Your task to perform on an android device: Go to display settings Image 0: 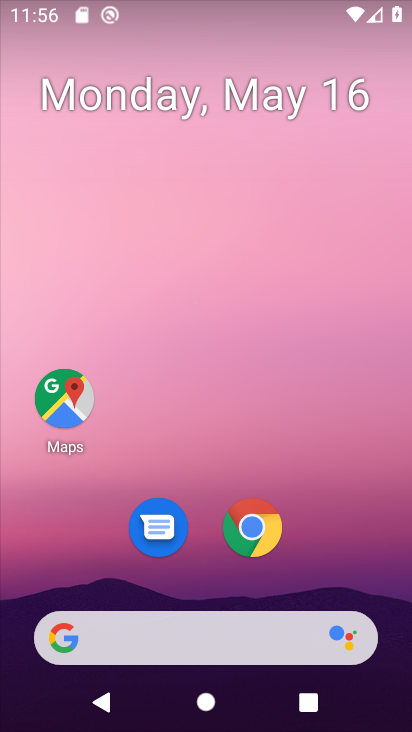
Step 0: drag from (318, 555) to (352, 248)
Your task to perform on an android device: Go to display settings Image 1: 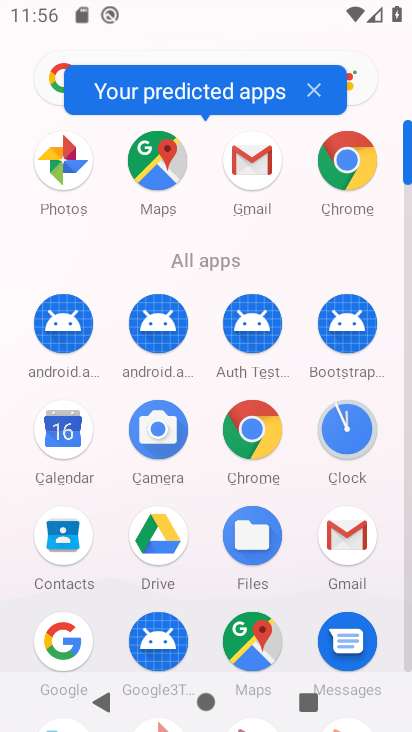
Step 1: drag from (297, 608) to (330, 260)
Your task to perform on an android device: Go to display settings Image 2: 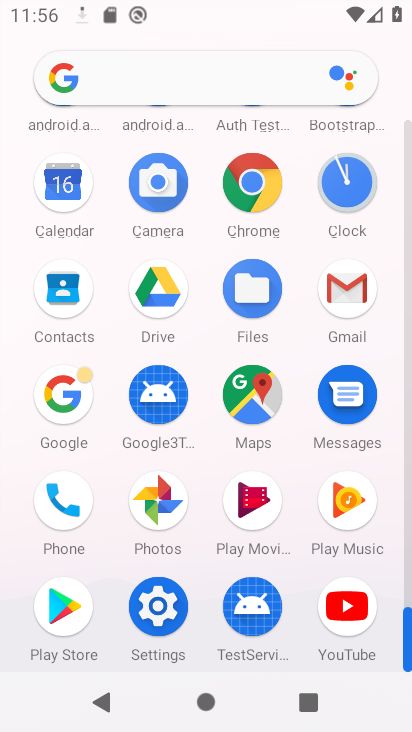
Step 2: click (157, 602)
Your task to perform on an android device: Go to display settings Image 3: 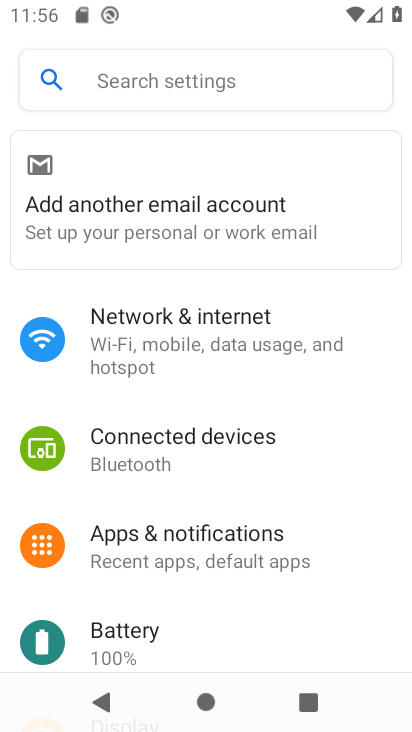
Step 3: drag from (224, 621) to (266, 266)
Your task to perform on an android device: Go to display settings Image 4: 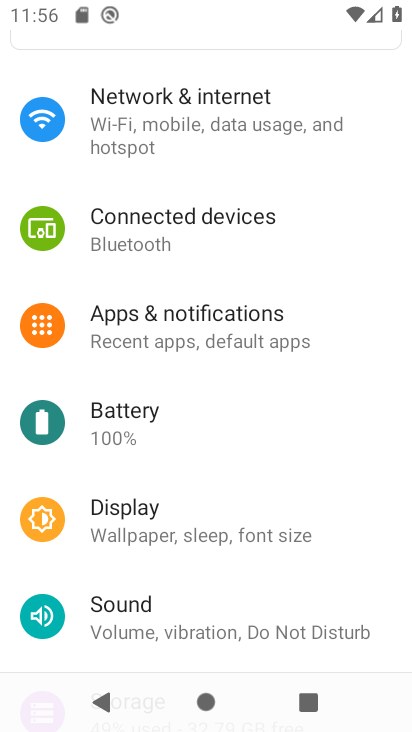
Step 4: click (232, 535)
Your task to perform on an android device: Go to display settings Image 5: 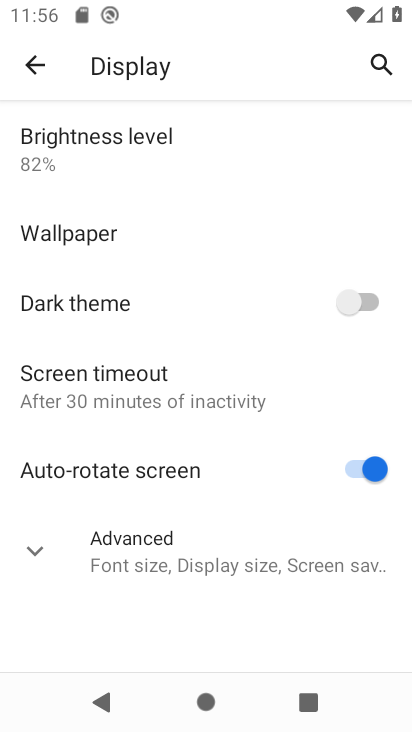
Step 5: task complete